Your task to perform on an android device: choose inbox layout in the gmail app Image 0: 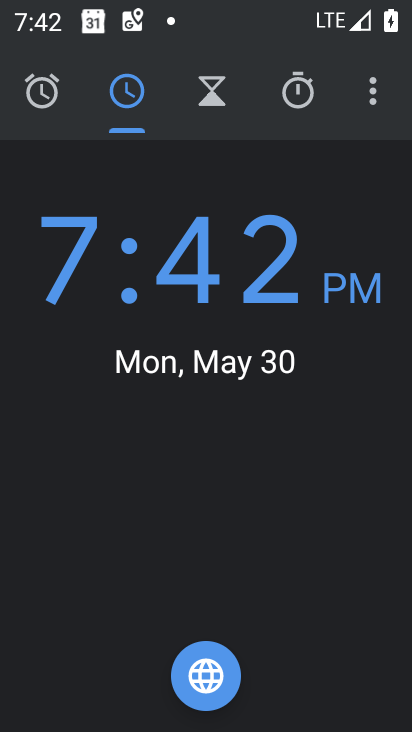
Step 0: press home button
Your task to perform on an android device: choose inbox layout in the gmail app Image 1: 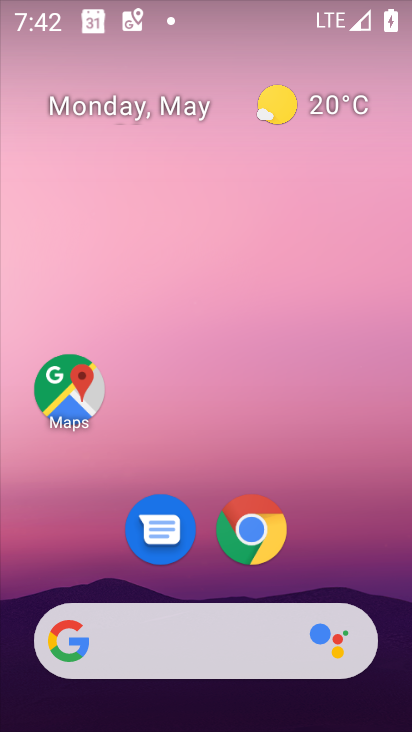
Step 1: drag from (37, 582) to (226, 194)
Your task to perform on an android device: choose inbox layout in the gmail app Image 2: 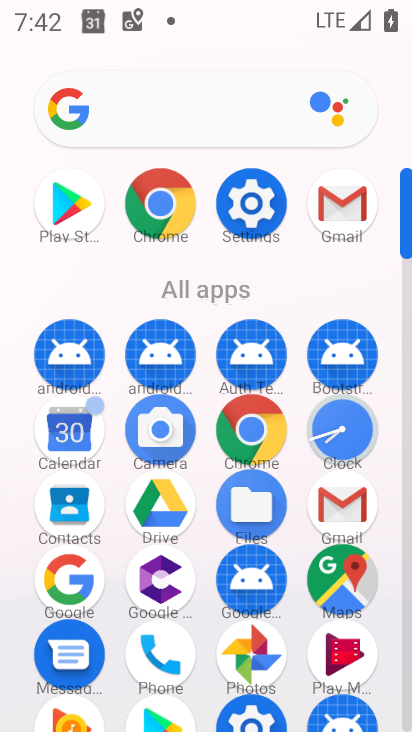
Step 2: click (329, 203)
Your task to perform on an android device: choose inbox layout in the gmail app Image 3: 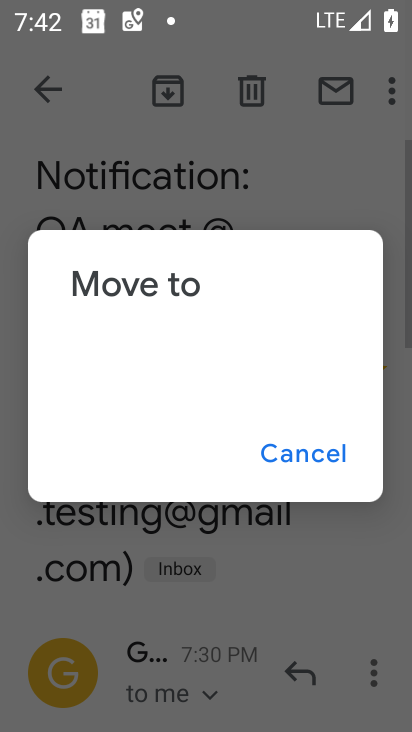
Step 3: click (321, 454)
Your task to perform on an android device: choose inbox layout in the gmail app Image 4: 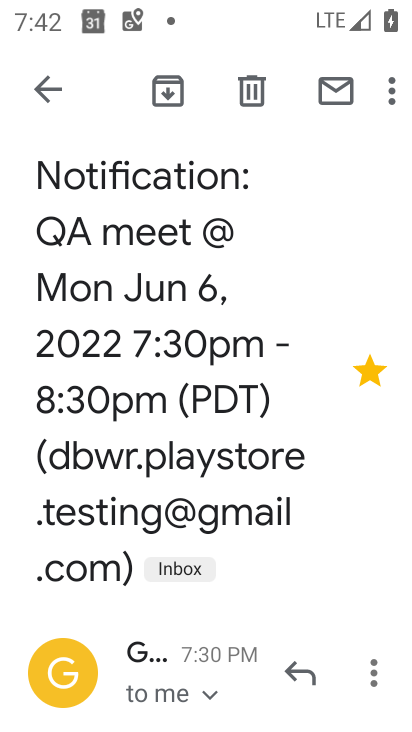
Step 4: press back button
Your task to perform on an android device: choose inbox layout in the gmail app Image 5: 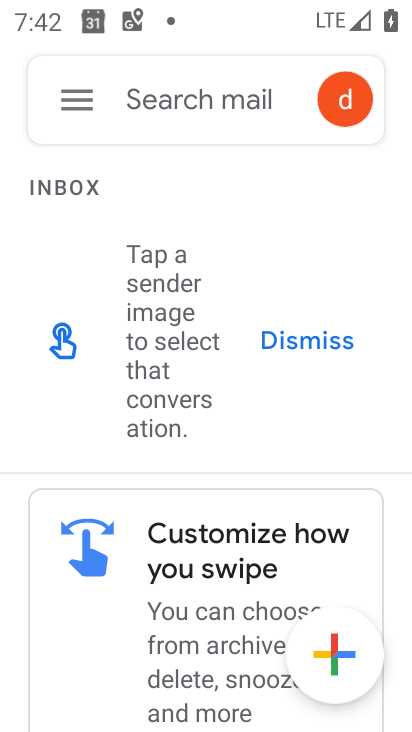
Step 5: click (72, 103)
Your task to perform on an android device: choose inbox layout in the gmail app Image 6: 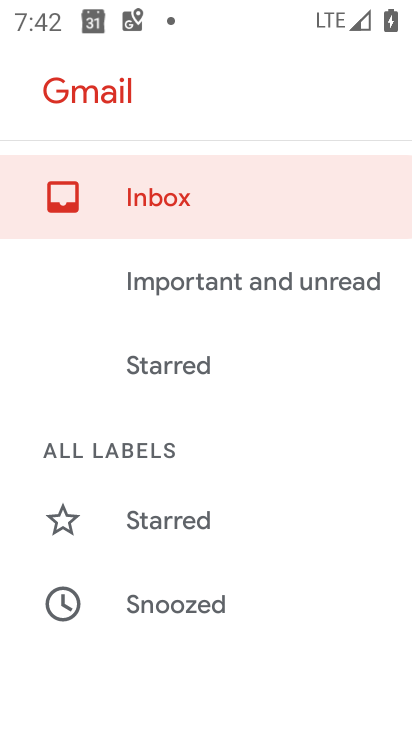
Step 6: drag from (0, 688) to (217, 188)
Your task to perform on an android device: choose inbox layout in the gmail app Image 7: 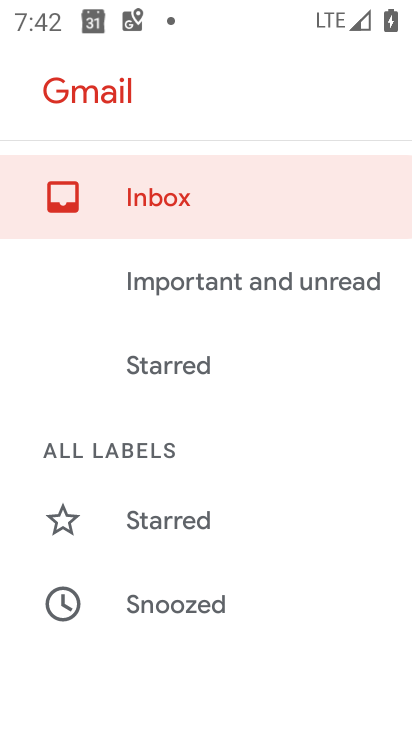
Step 7: drag from (13, 497) to (201, 165)
Your task to perform on an android device: choose inbox layout in the gmail app Image 8: 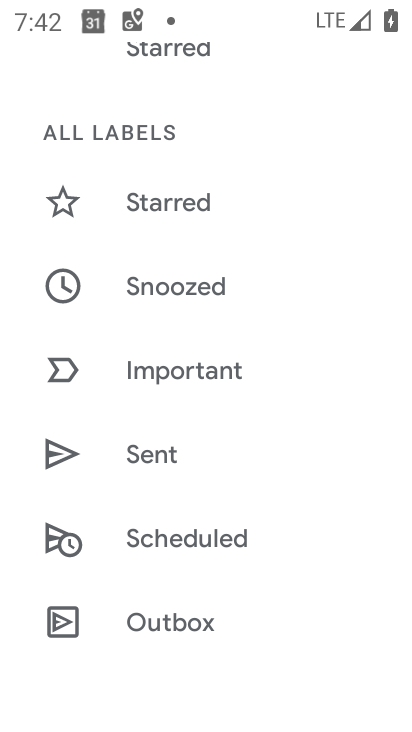
Step 8: drag from (85, 377) to (230, 167)
Your task to perform on an android device: choose inbox layout in the gmail app Image 9: 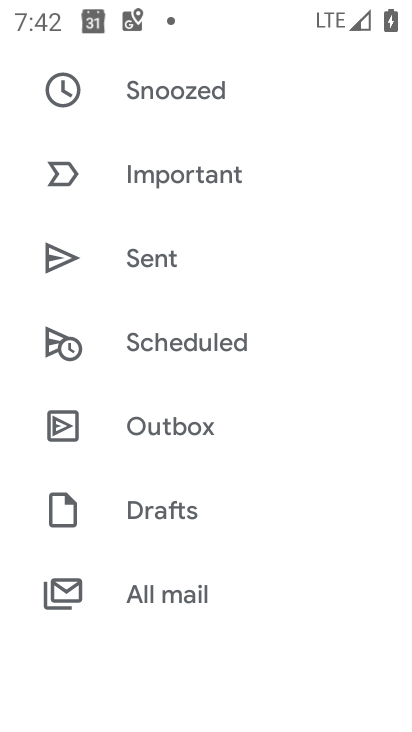
Step 9: drag from (19, 476) to (214, 151)
Your task to perform on an android device: choose inbox layout in the gmail app Image 10: 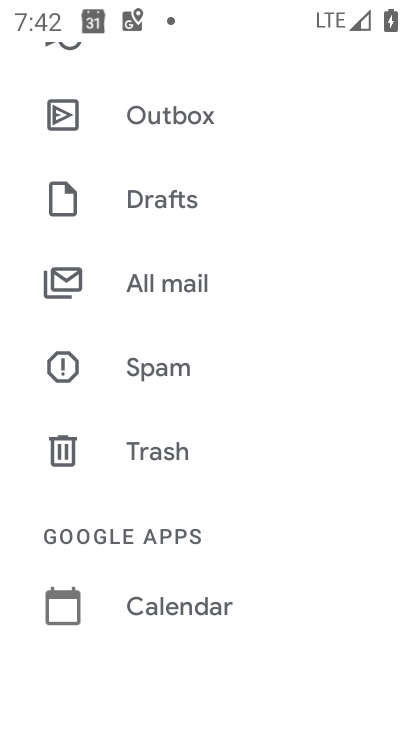
Step 10: drag from (56, 459) to (276, 155)
Your task to perform on an android device: choose inbox layout in the gmail app Image 11: 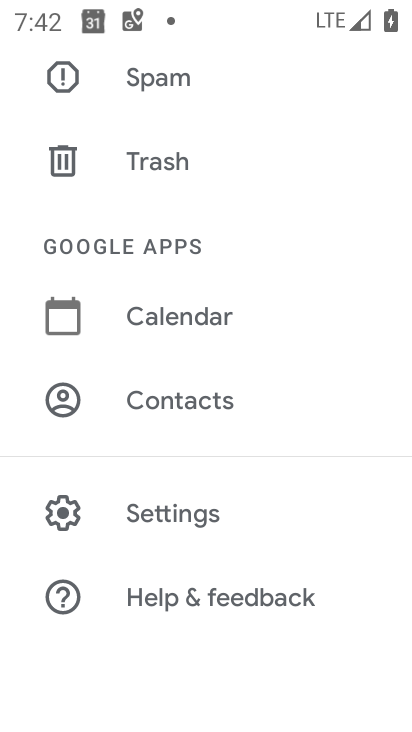
Step 11: click (175, 522)
Your task to perform on an android device: choose inbox layout in the gmail app Image 12: 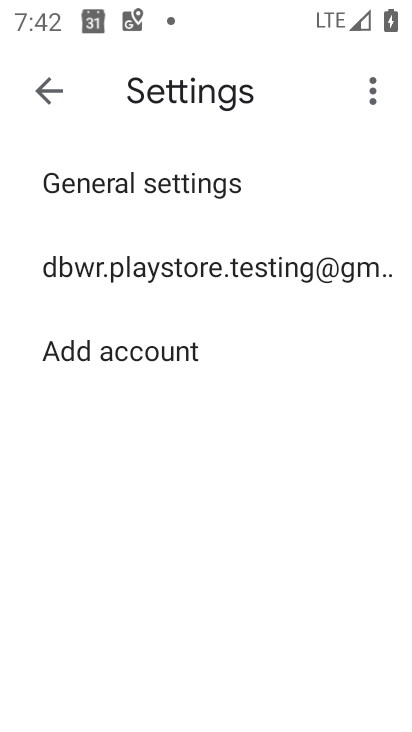
Step 12: click (172, 257)
Your task to perform on an android device: choose inbox layout in the gmail app Image 13: 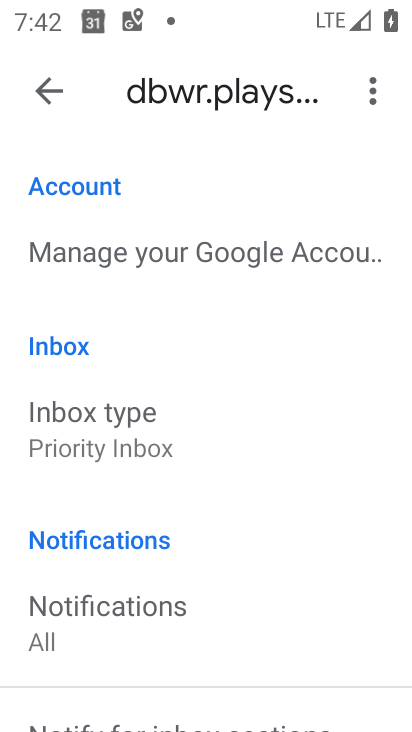
Step 13: task complete